Your task to perform on an android device: Open internet settings Image 0: 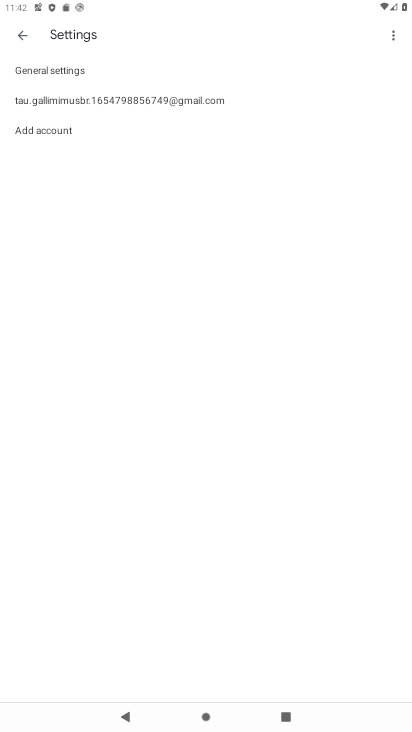
Step 0: press home button
Your task to perform on an android device: Open internet settings Image 1: 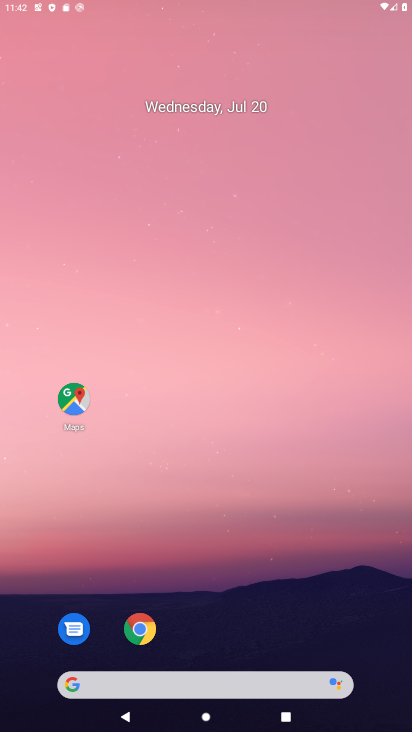
Step 1: drag from (194, 611) to (210, 164)
Your task to perform on an android device: Open internet settings Image 2: 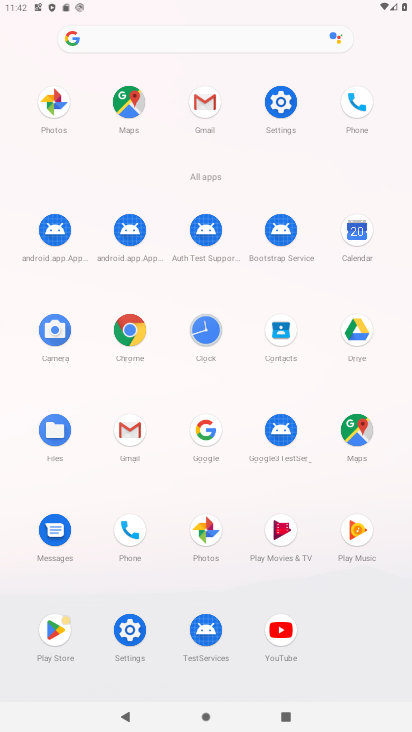
Step 2: click (280, 108)
Your task to perform on an android device: Open internet settings Image 3: 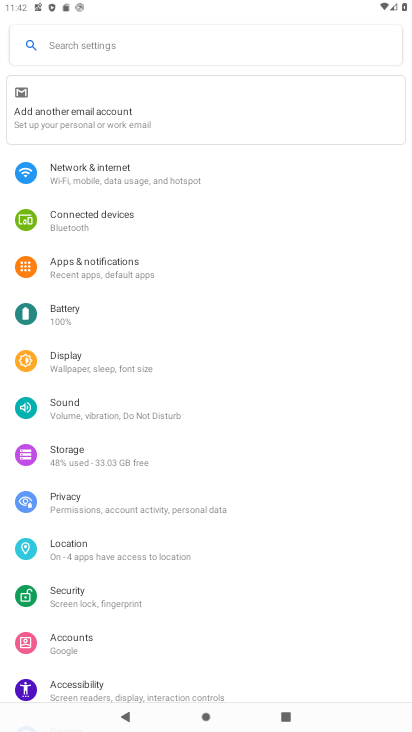
Step 3: click (126, 156)
Your task to perform on an android device: Open internet settings Image 4: 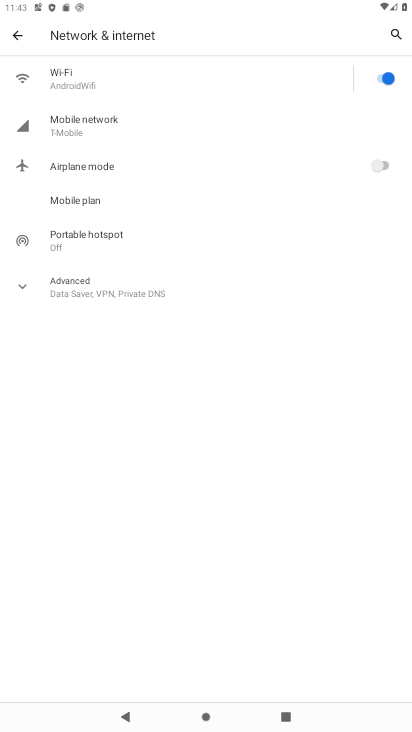
Step 4: task complete